Your task to perform on an android device: Open Google Maps Image 0: 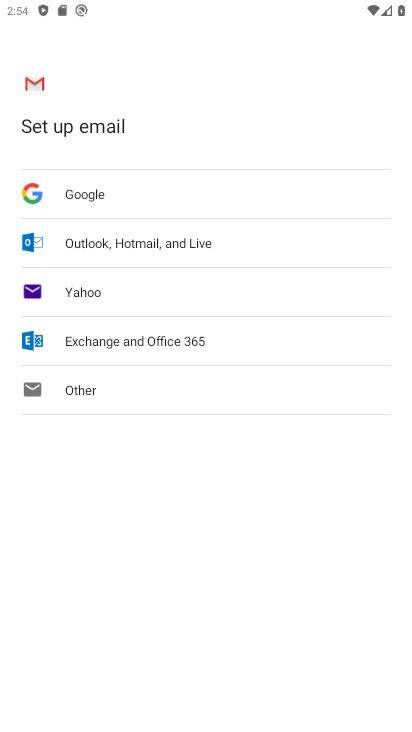
Step 0: press home button
Your task to perform on an android device: Open Google Maps Image 1: 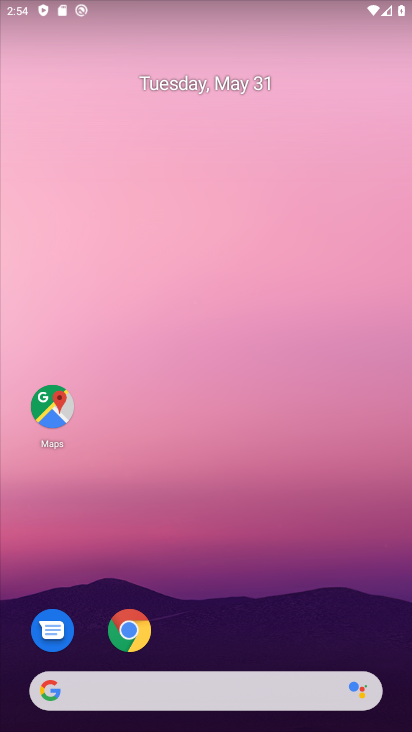
Step 1: click (46, 403)
Your task to perform on an android device: Open Google Maps Image 2: 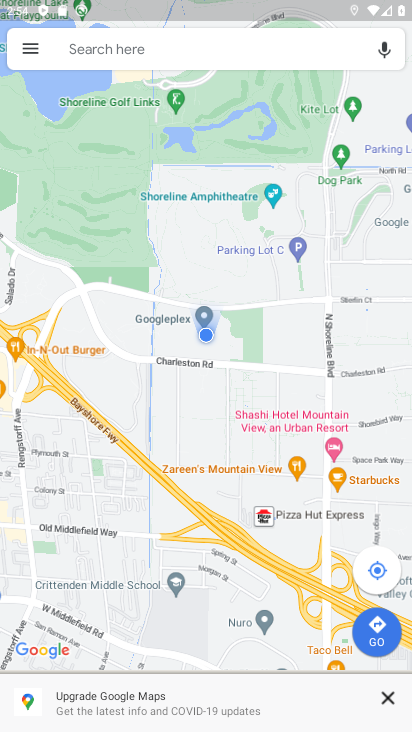
Step 2: task complete